Your task to perform on an android device: change the clock style Image 0: 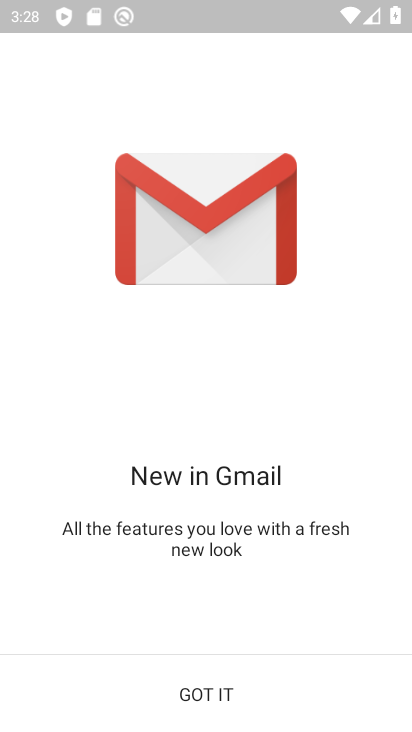
Step 0: press home button
Your task to perform on an android device: change the clock style Image 1: 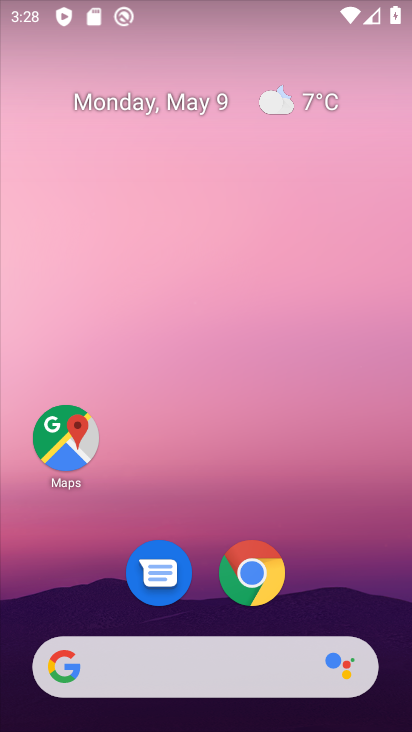
Step 1: drag from (335, 612) to (356, 3)
Your task to perform on an android device: change the clock style Image 2: 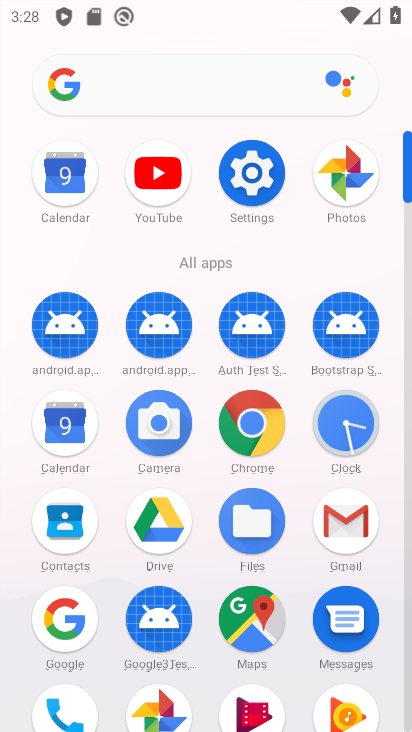
Step 2: click (351, 430)
Your task to perform on an android device: change the clock style Image 3: 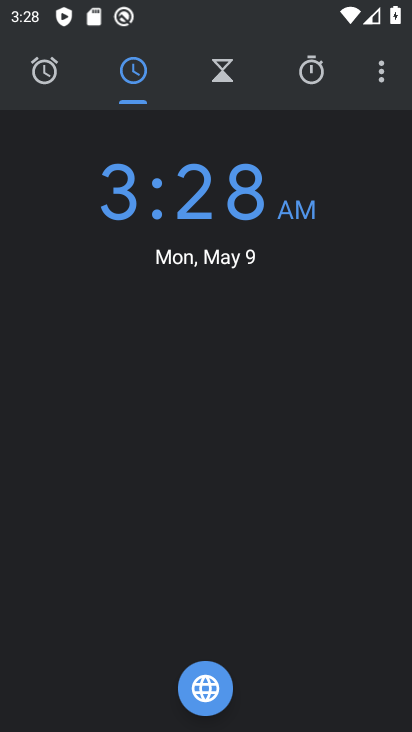
Step 3: click (381, 70)
Your task to perform on an android device: change the clock style Image 4: 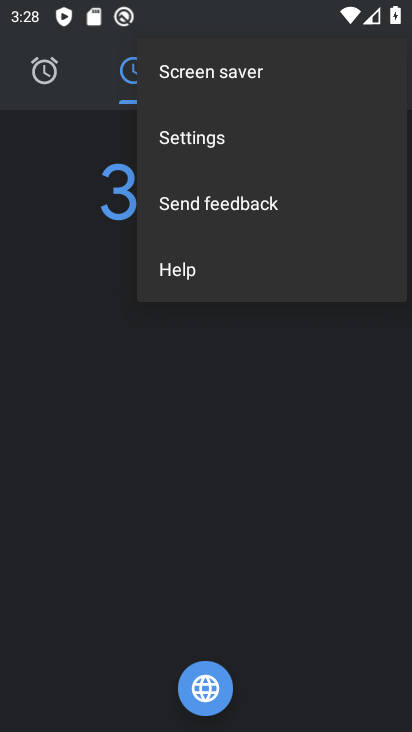
Step 4: click (214, 139)
Your task to perform on an android device: change the clock style Image 5: 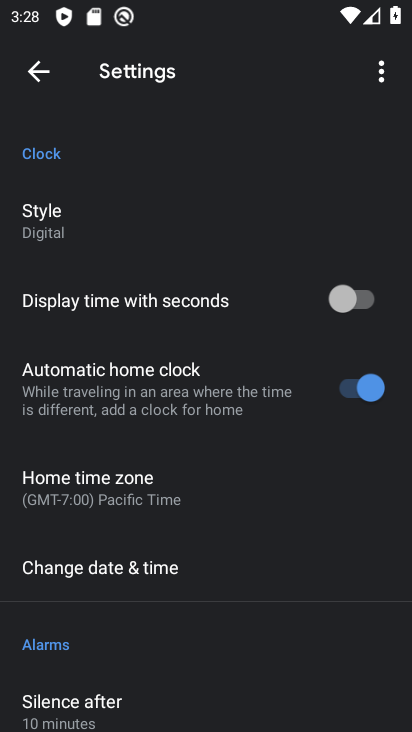
Step 5: click (56, 235)
Your task to perform on an android device: change the clock style Image 6: 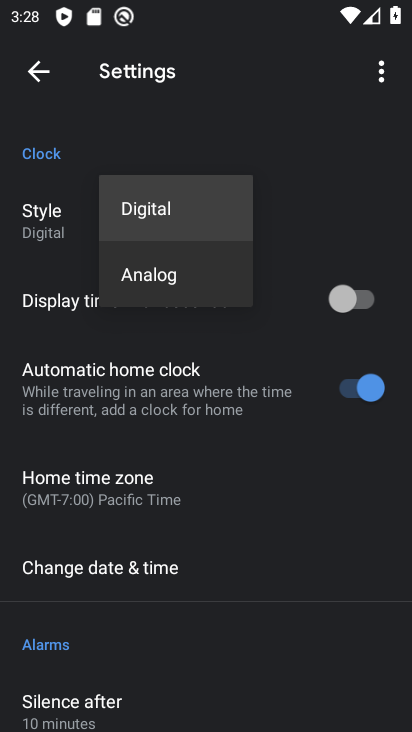
Step 6: click (140, 281)
Your task to perform on an android device: change the clock style Image 7: 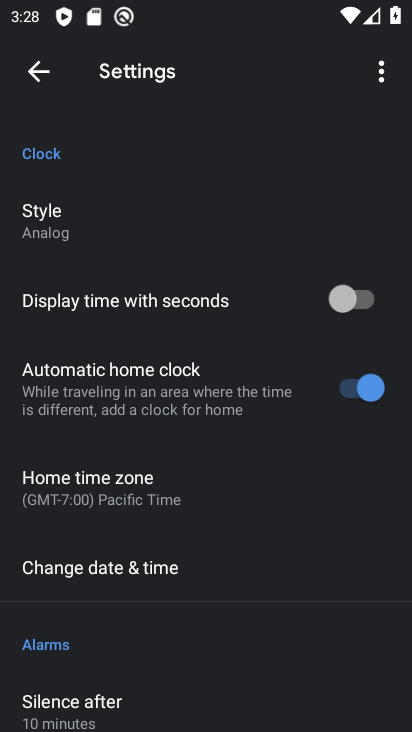
Step 7: task complete